Your task to perform on an android device: change the clock style Image 0: 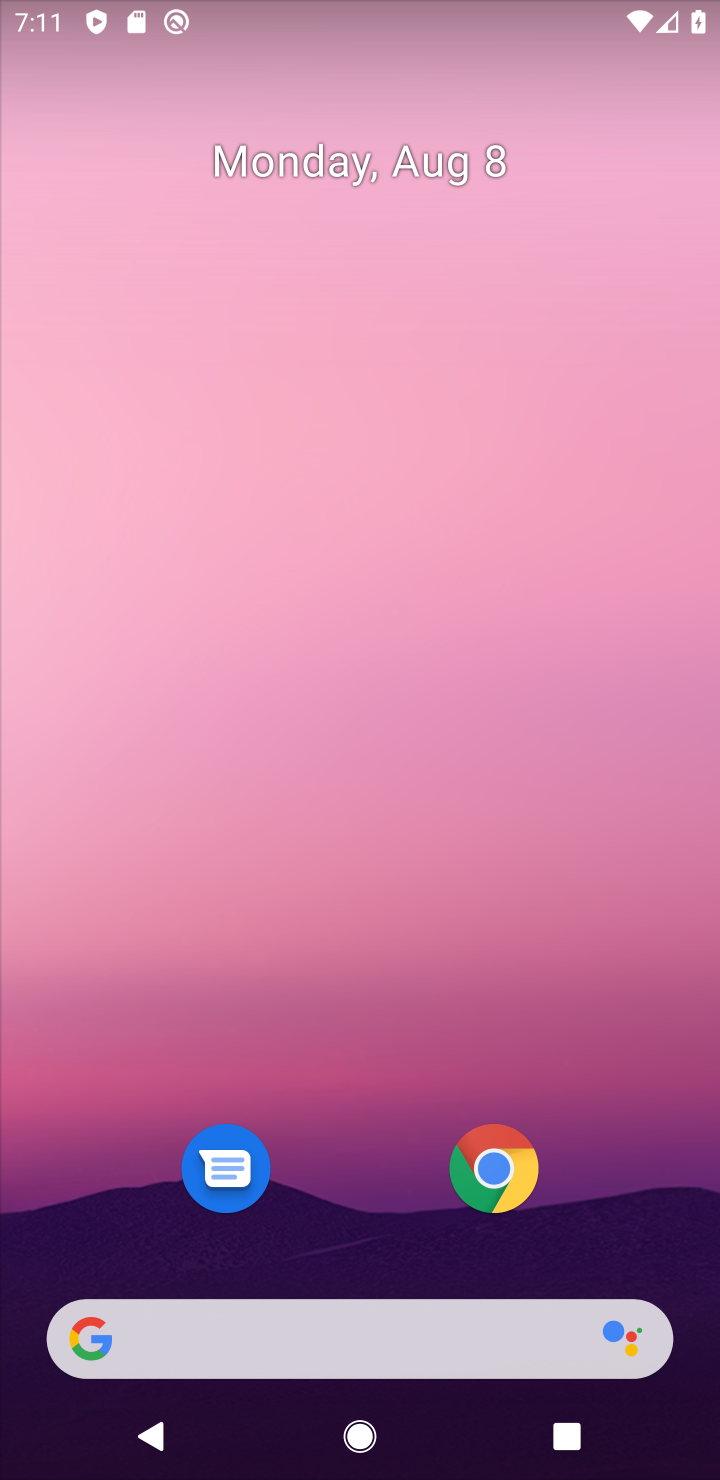
Step 0: drag from (663, 1243) to (327, 78)
Your task to perform on an android device: change the clock style Image 1: 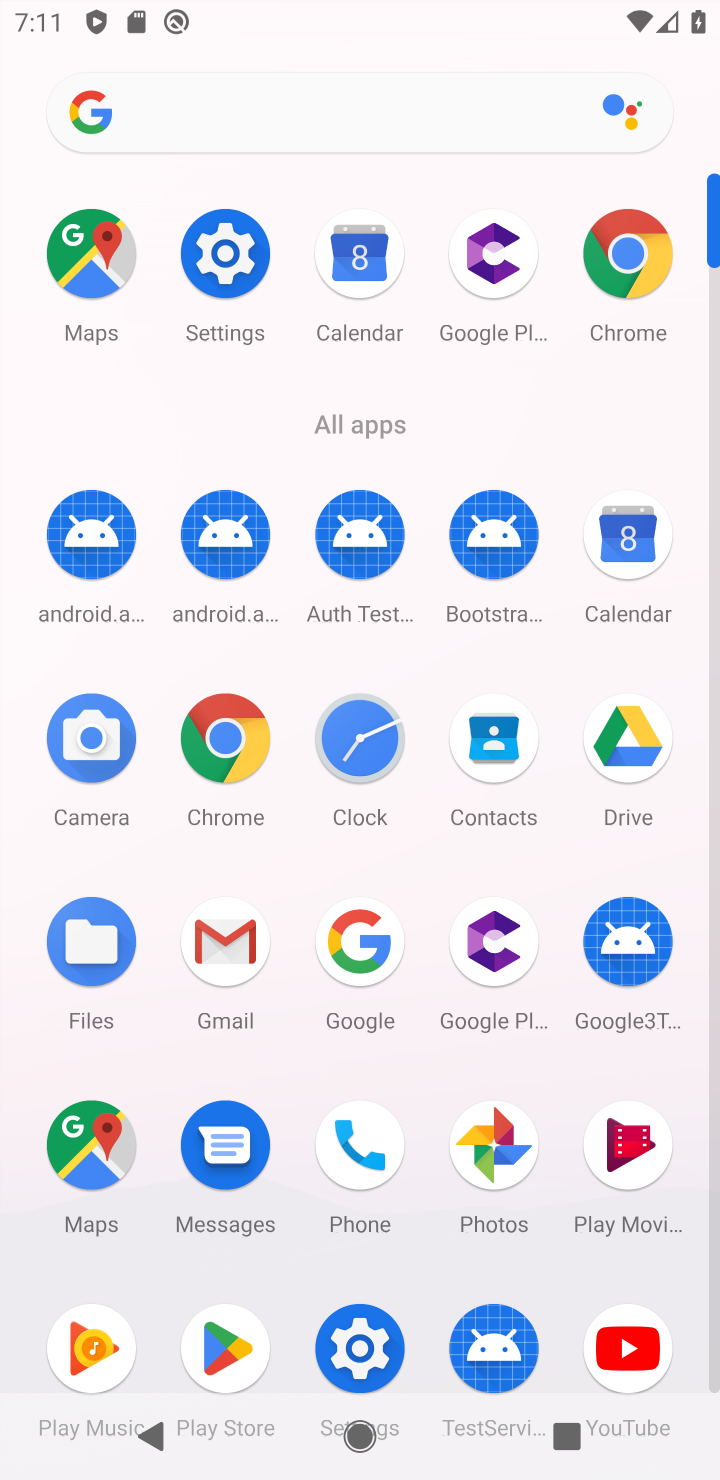
Step 1: click (356, 741)
Your task to perform on an android device: change the clock style Image 2: 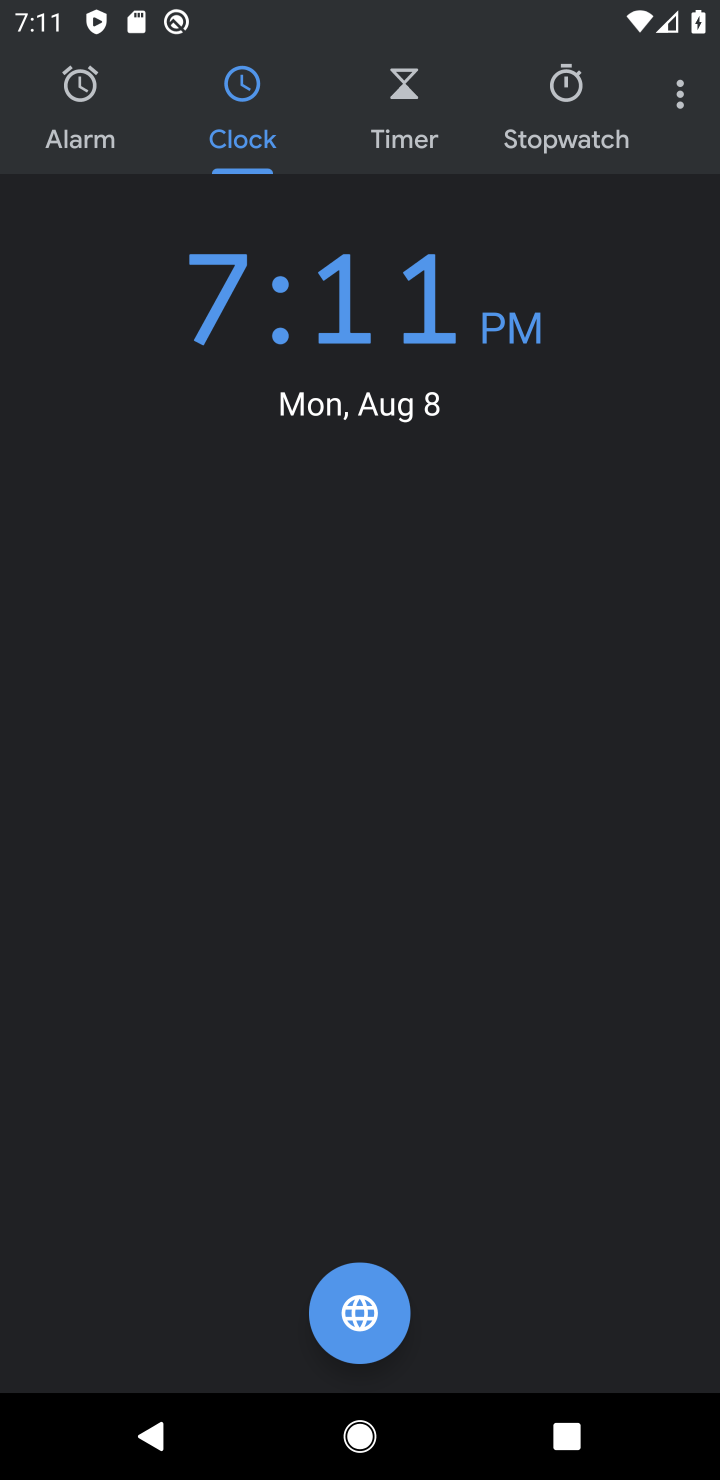
Step 2: click (681, 94)
Your task to perform on an android device: change the clock style Image 3: 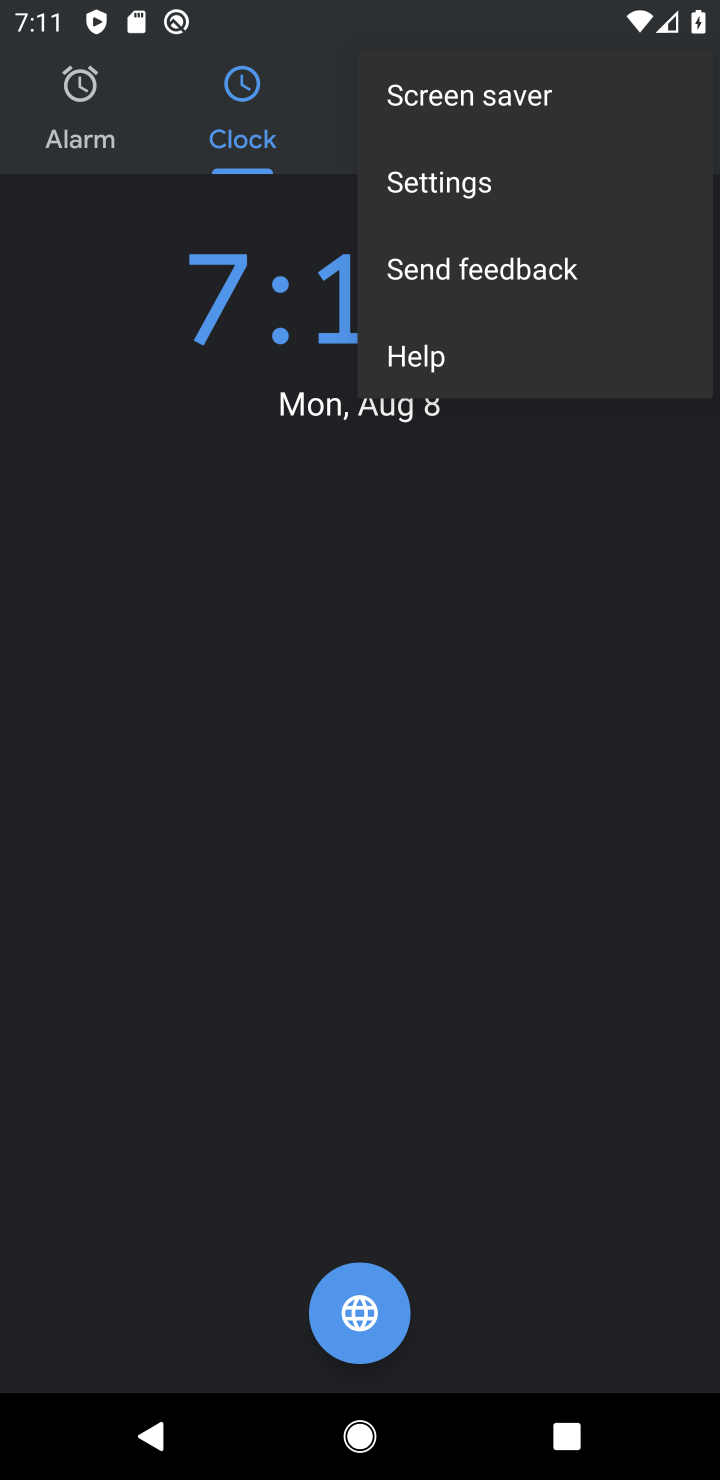
Step 3: click (474, 186)
Your task to perform on an android device: change the clock style Image 4: 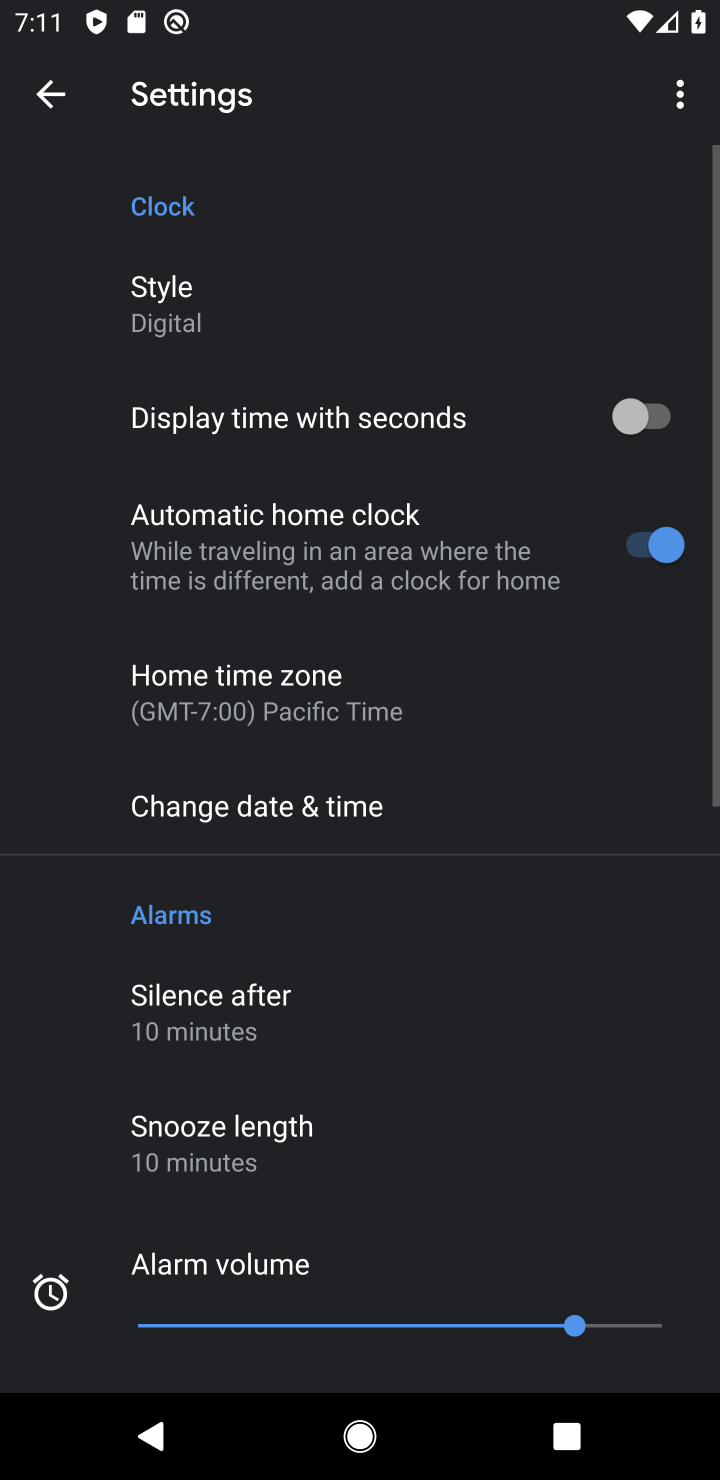
Step 4: click (253, 312)
Your task to perform on an android device: change the clock style Image 5: 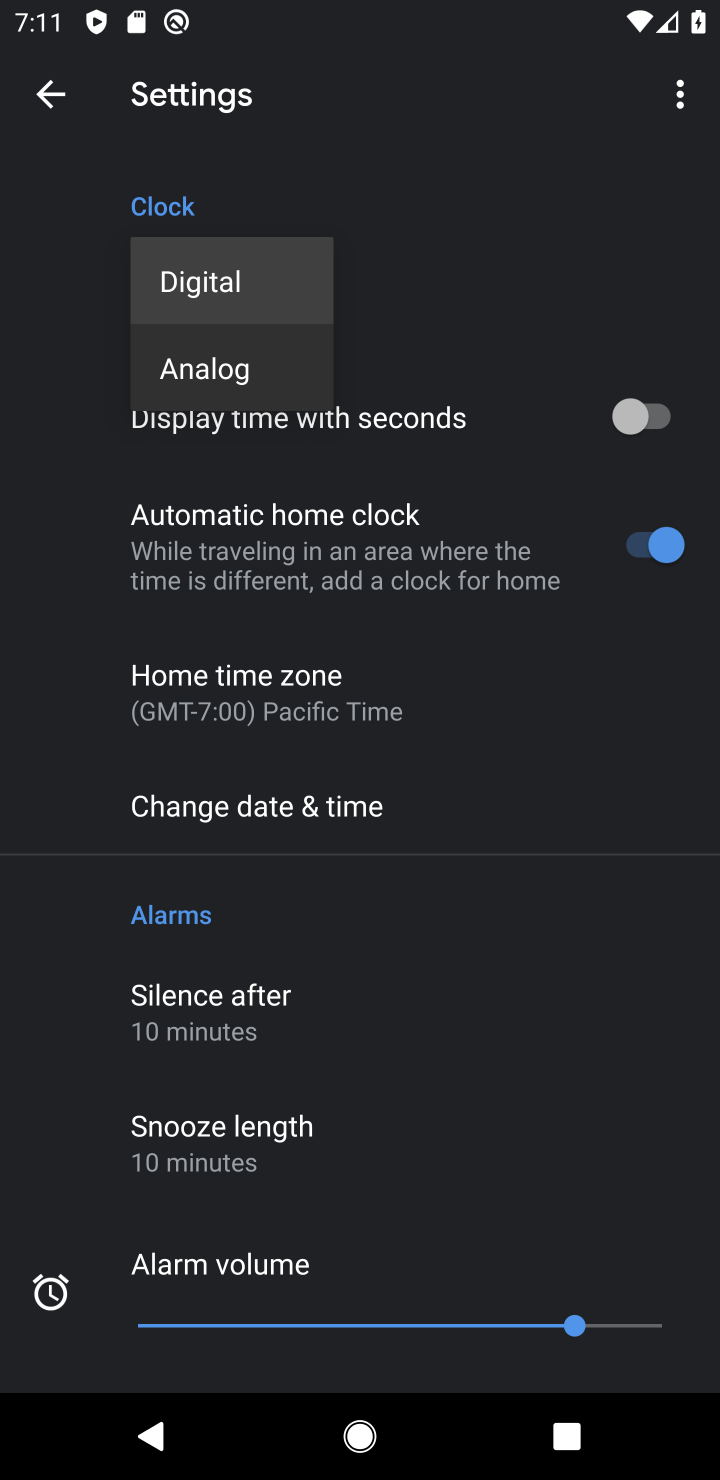
Step 5: click (193, 366)
Your task to perform on an android device: change the clock style Image 6: 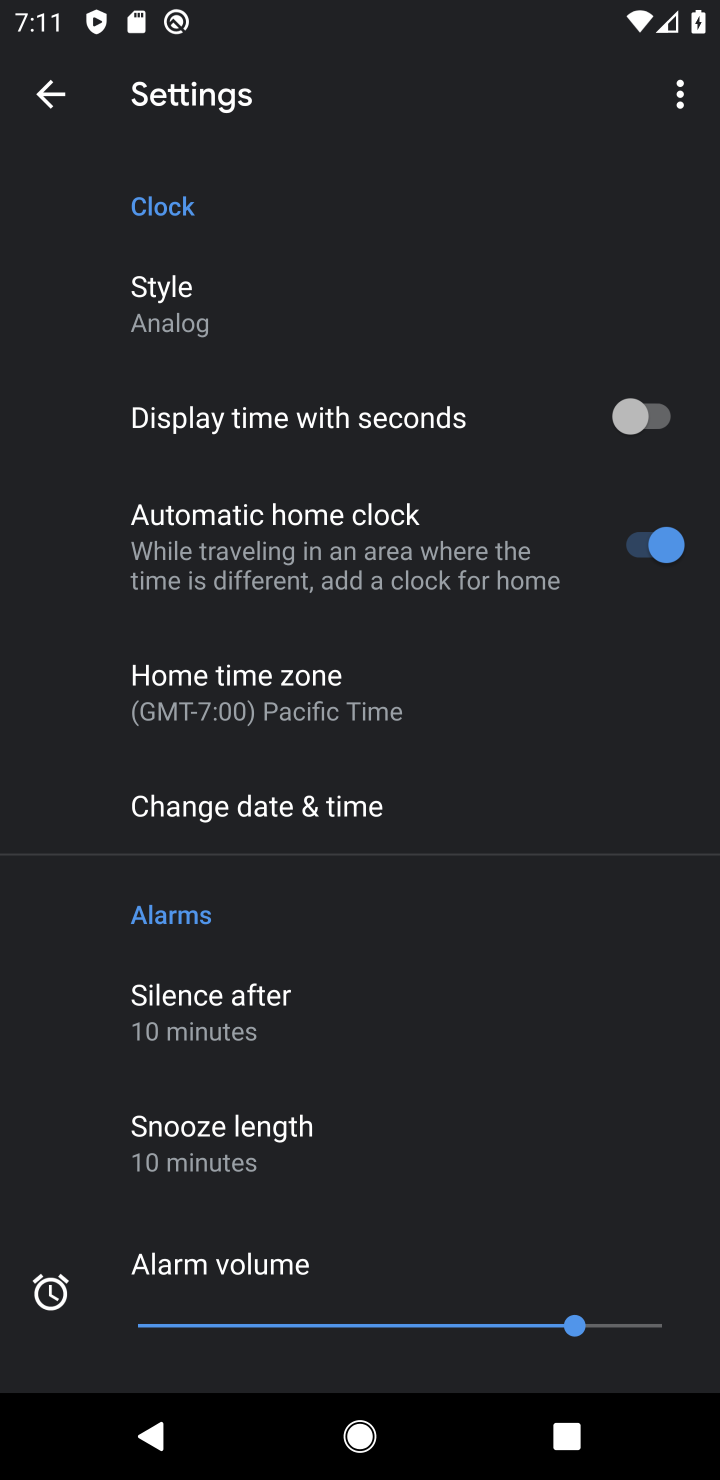
Step 6: task complete